Your task to perform on an android device: Open my contact list Image 0: 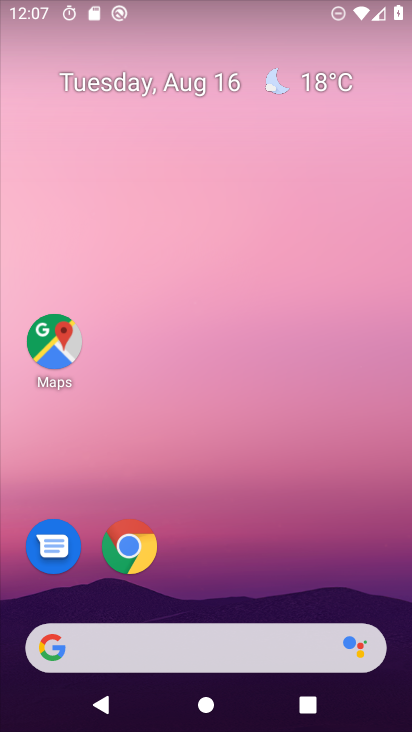
Step 0: drag from (211, 592) to (220, 73)
Your task to perform on an android device: Open my contact list Image 1: 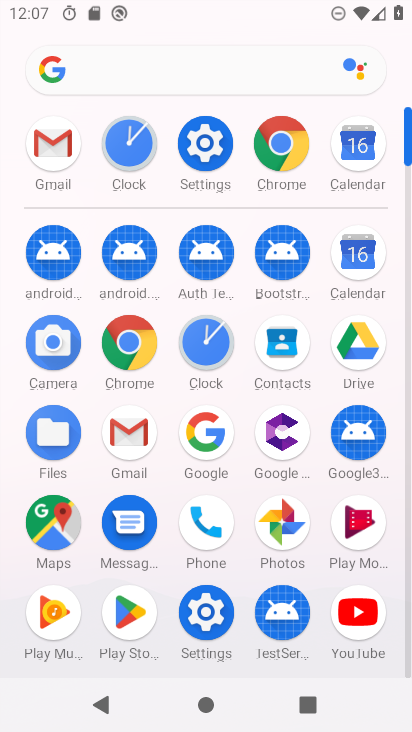
Step 1: click (282, 339)
Your task to perform on an android device: Open my contact list Image 2: 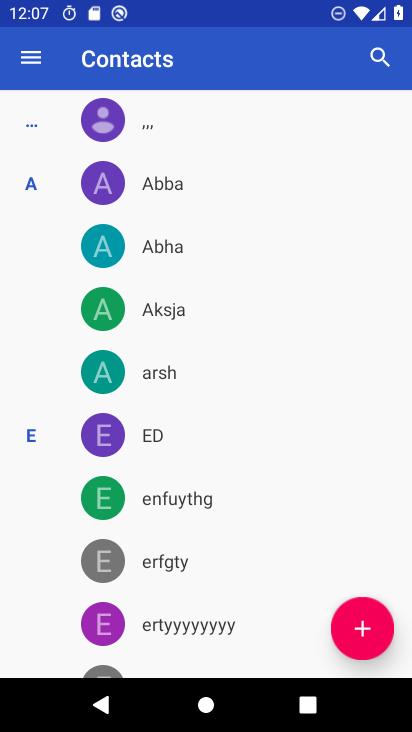
Step 2: task complete